Your task to perform on an android device: turn on showing notifications on the lock screen Image 0: 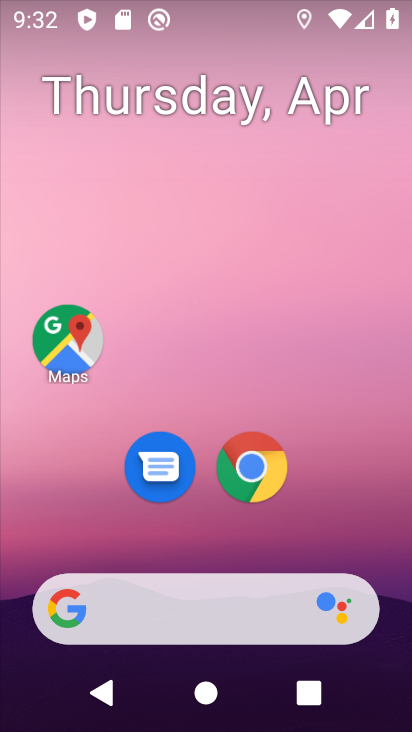
Step 0: drag from (351, 543) to (299, 66)
Your task to perform on an android device: turn on showing notifications on the lock screen Image 1: 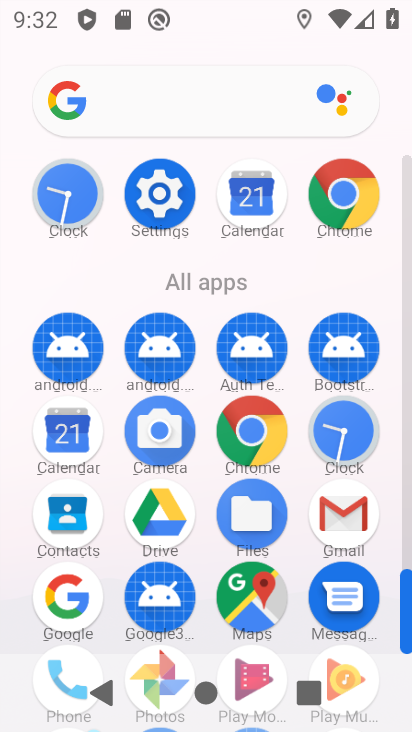
Step 1: click (167, 210)
Your task to perform on an android device: turn on showing notifications on the lock screen Image 2: 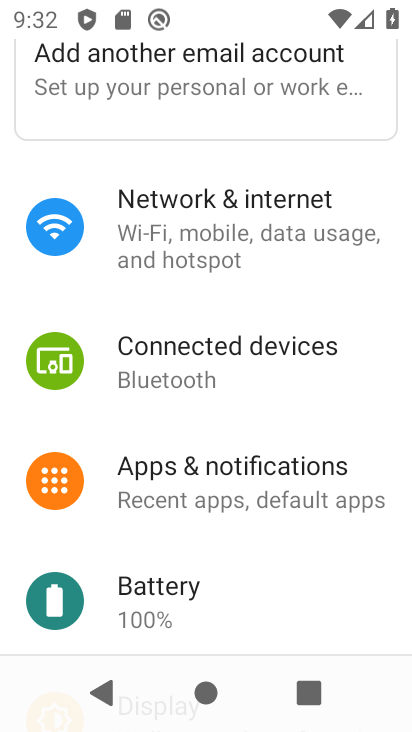
Step 2: click (314, 469)
Your task to perform on an android device: turn on showing notifications on the lock screen Image 3: 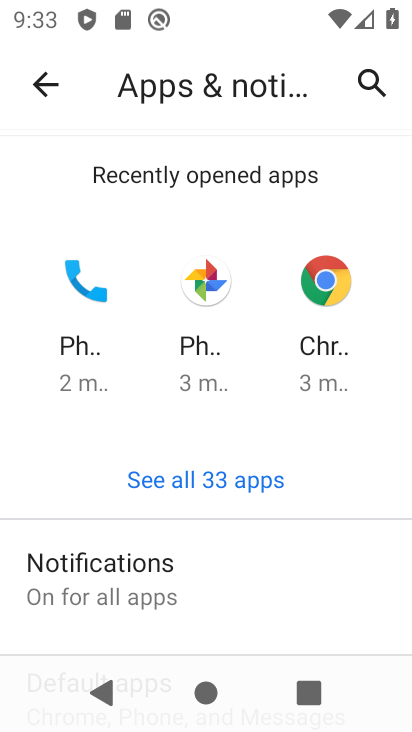
Step 3: drag from (297, 532) to (226, 125)
Your task to perform on an android device: turn on showing notifications on the lock screen Image 4: 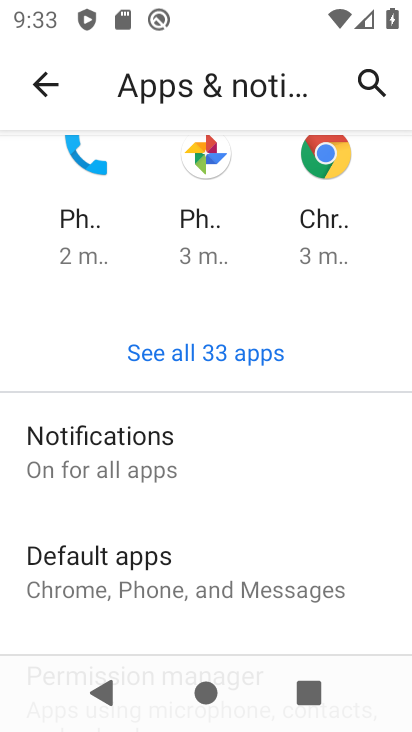
Step 4: click (256, 473)
Your task to perform on an android device: turn on showing notifications on the lock screen Image 5: 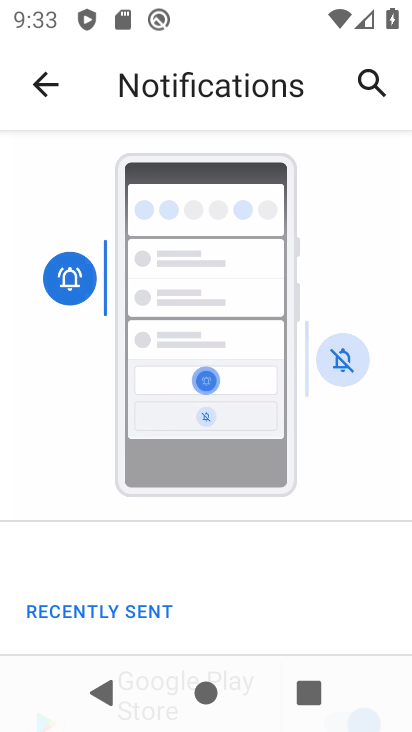
Step 5: drag from (251, 546) to (217, 169)
Your task to perform on an android device: turn on showing notifications on the lock screen Image 6: 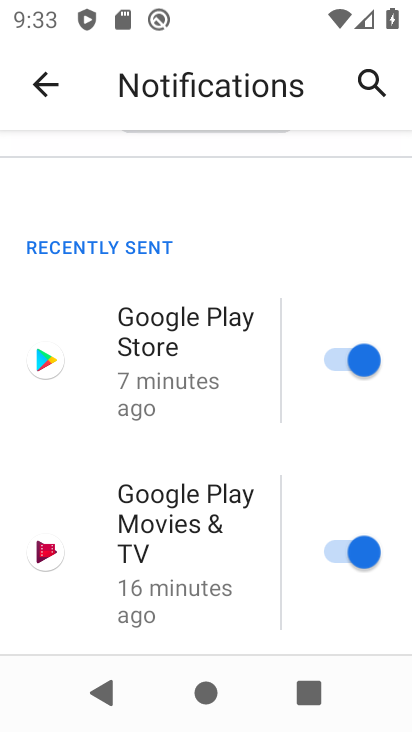
Step 6: drag from (253, 620) to (241, 278)
Your task to perform on an android device: turn on showing notifications on the lock screen Image 7: 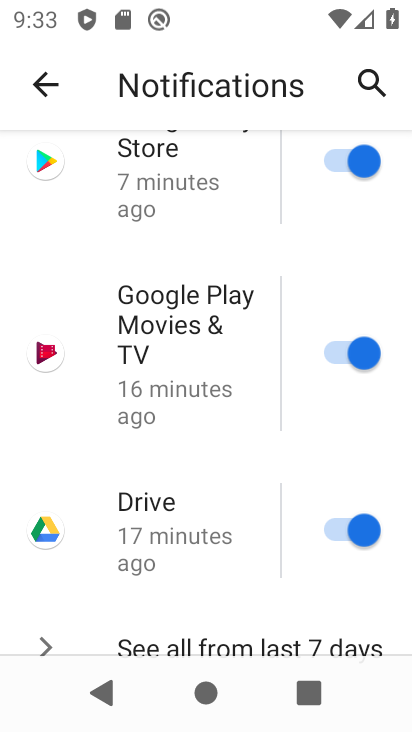
Step 7: drag from (278, 612) to (295, 193)
Your task to perform on an android device: turn on showing notifications on the lock screen Image 8: 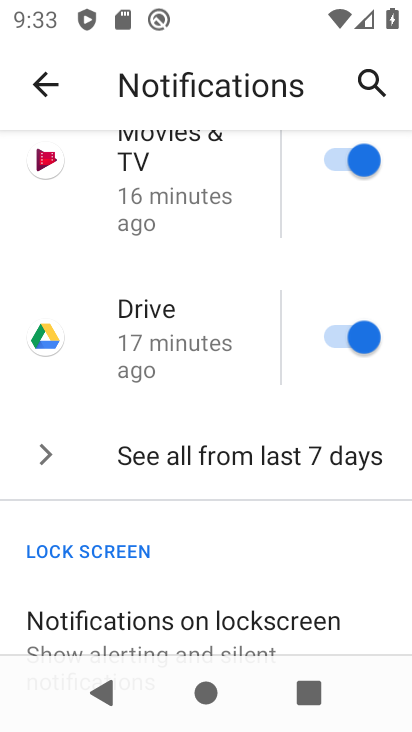
Step 8: drag from (255, 581) to (247, 362)
Your task to perform on an android device: turn on showing notifications on the lock screen Image 9: 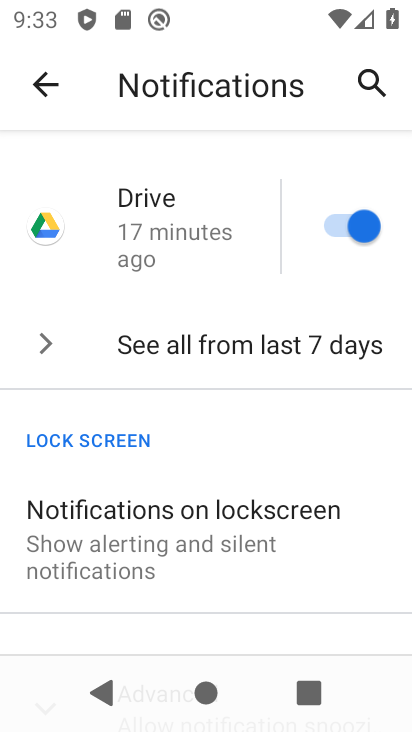
Step 9: click (245, 574)
Your task to perform on an android device: turn on showing notifications on the lock screen Image 10: 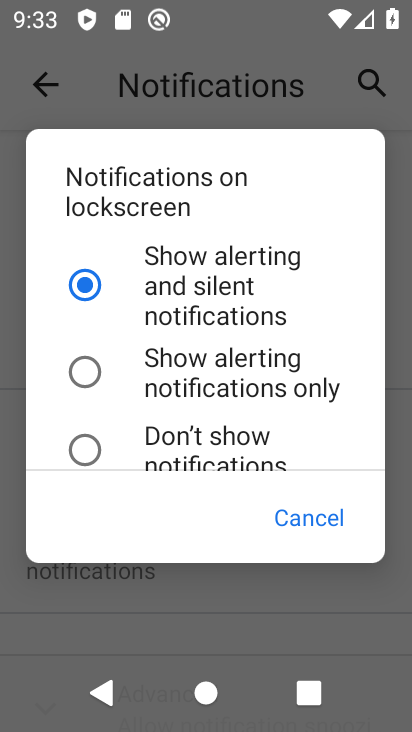
Step 10: click (271, 384)
Your task to perform on an android device: turn on showing notifications on the lock screen Image 11: 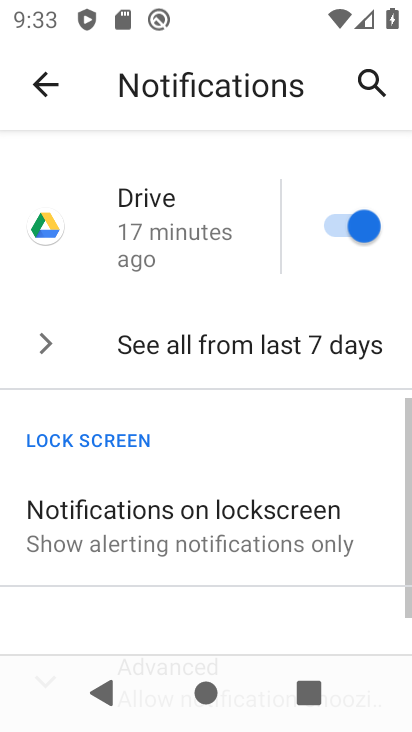
Step 11: task complete